Your task to perform on an android device: open a new tab in the chrome app Image 0: 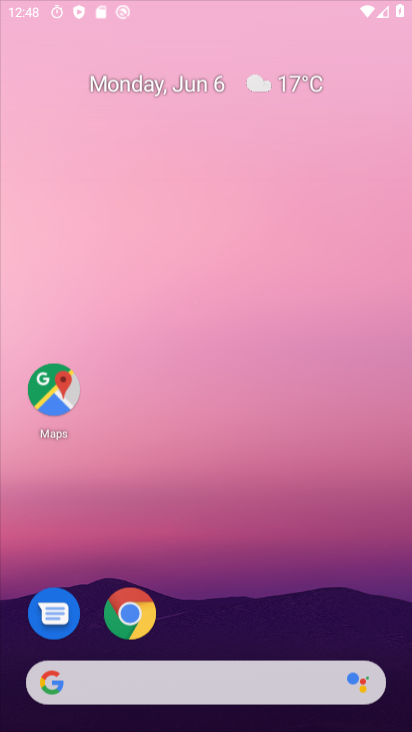
Step 0: click (209, 191)
Your task to perform on an android device: open a new tab in the chrome app Image 1: 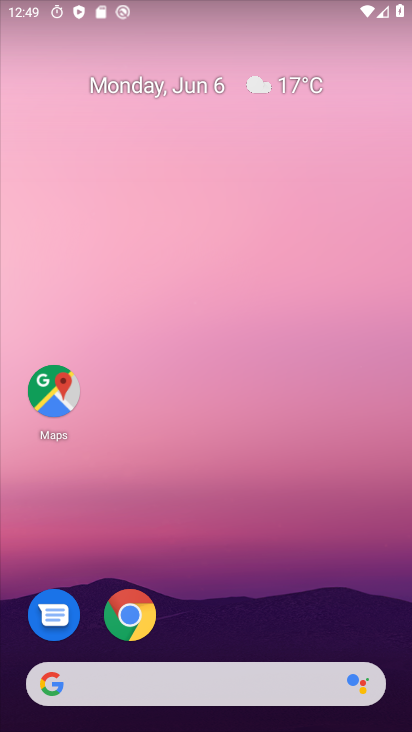
Step 1: drag from (187, 620) to (197, 206)
Your task to perform on an android device: open a new tab in the chrome app Image 2: 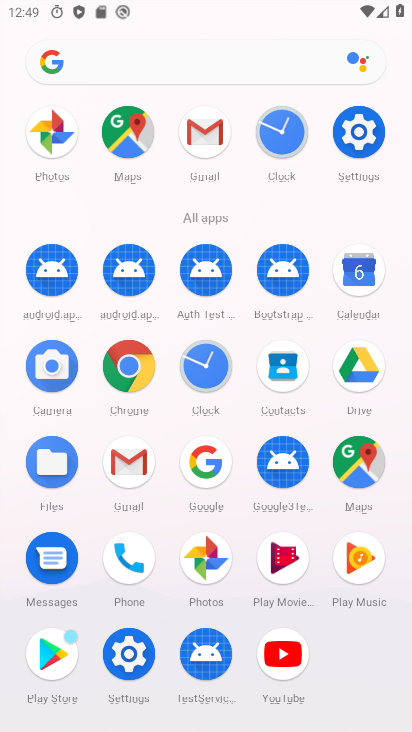
Step 2: click (133, 357)
Your task to perform on an android device: open a new tab in the chrome app Image 3: 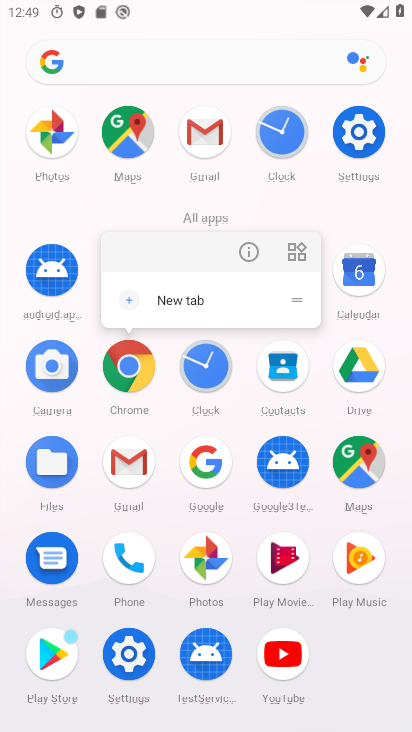
Step 3: click (240, 251)
Your task to perform on an android device: open a new tab in the chrome app Image 4: 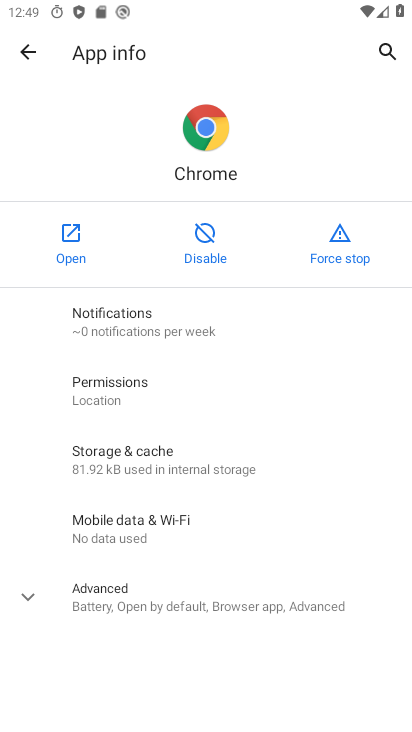
Step 4: click (78, 240)
Your task to perform on an android device: open a new tab in the chrome app Image 5: 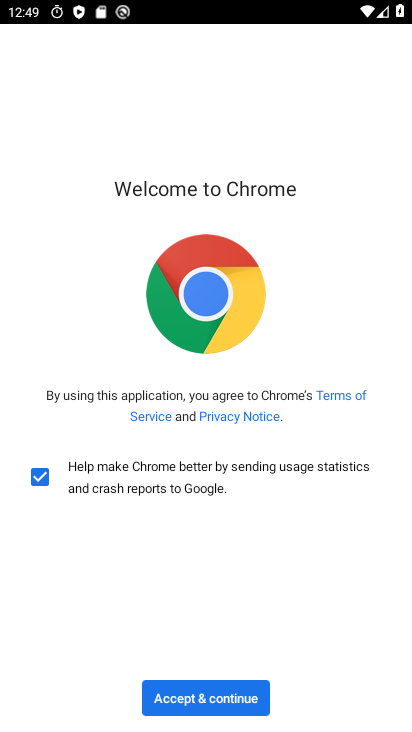
Step 5: click (204, 687)
Your task to perform on an android device: open a new tab in the chrome app Image 6: 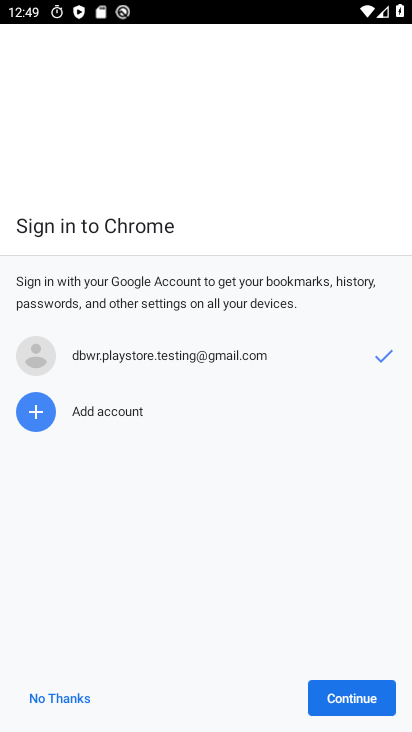
Step 6: click (347, 710)
Your task to perform on an android device: open a new tab in the chrome app Image 7: 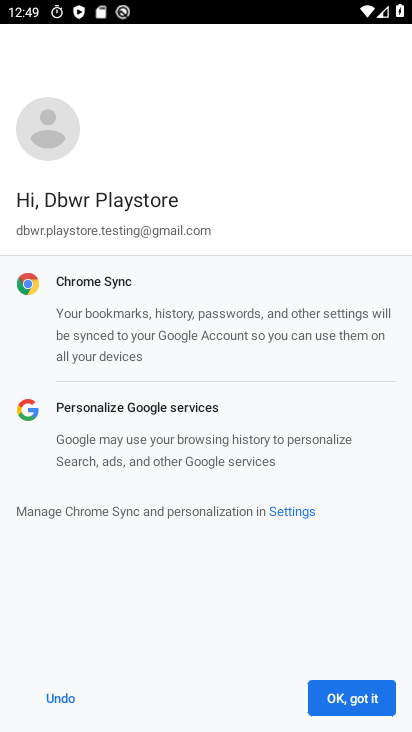
Step 7: click (370, 673)
Your task to perform on an android device: open a new tab in the chrome app Image 8: 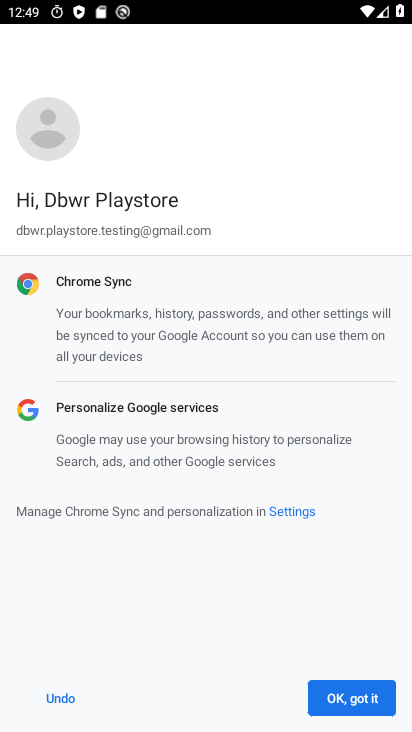
Step 8: click (337, 688)
Your task to perform on an android device: open a new tab in the chrome app Image 9: 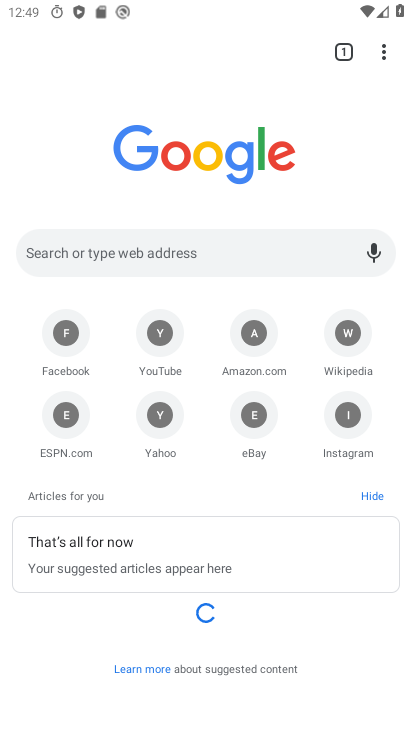
Step 9: task complete